Your task to perform on an android device: turn on showing notifications on the lock screen Image 0: 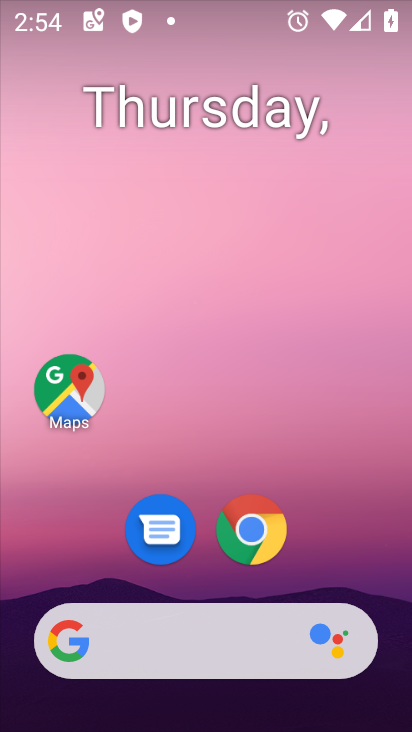
Step 0: drag from (151, 712) to (221, 167)
Your task to perform on an android device: turn on showing notifications on the lock screen Image 1: 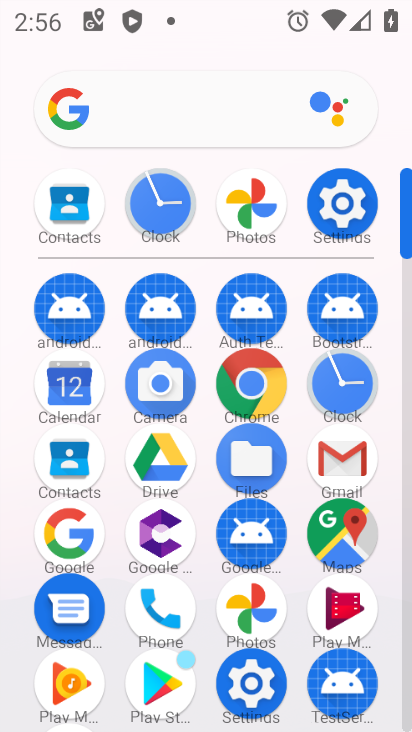
Step 1: click (341, 202)
Your task to perform on an android device: turn on showing notifications on the lock screen Image 2: 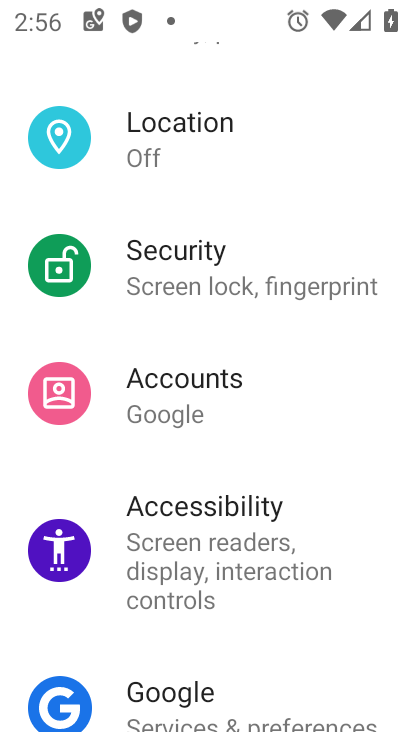
Step 2: drag from (231, 224) to (225, 685)
Your task to perform on an android device: turn on showing notifications on the lock screen Image 3: 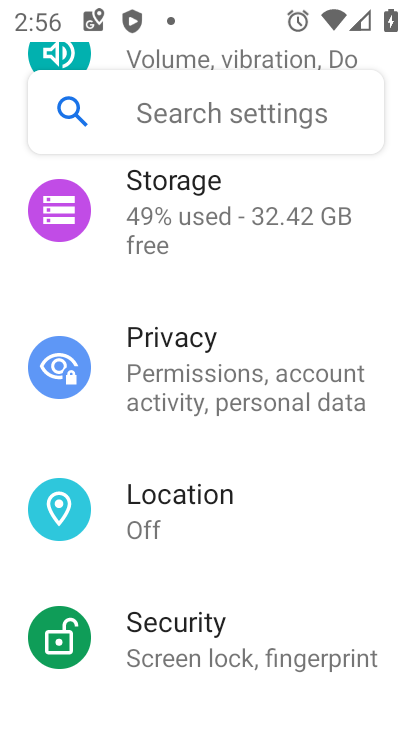
Step 3: drag from (277, 230) to (265, 605)
Your task to perform on an android device: turn on showing notifications on the lock screen Image 4: 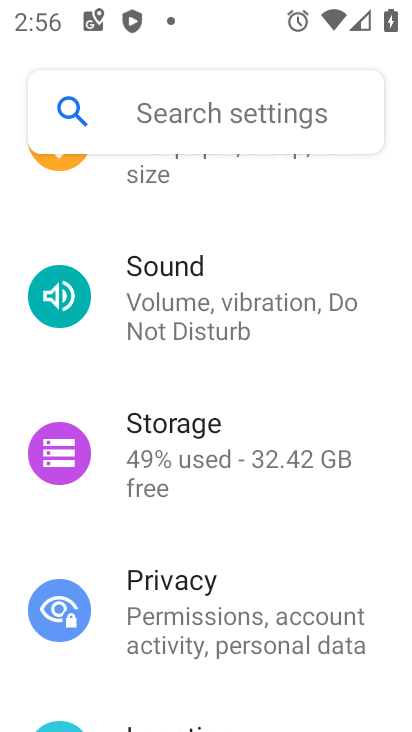
Step 4: drag from (308, 207) to (263, 635)
Your task to perform on an android device: turn on showing notifications on the lock screen Image 5: 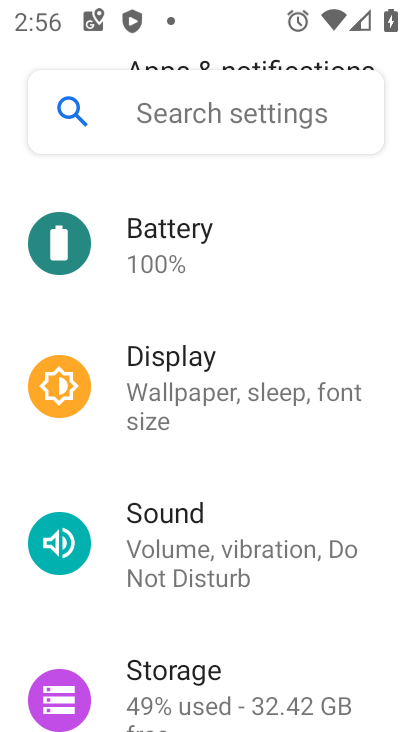
Step 5: drag from (267, 347) to (263, 706)
Your task to perform on an android device: turn on showing notifications on the lock screen Image 6: 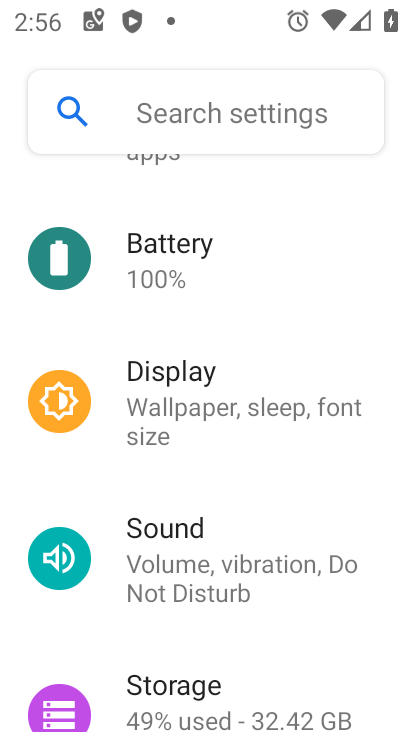
Step 6: drag from (293, 297) to (247, 604)
Your task to perform on an android device: turn on showing notifications on the lock screen Image 7: 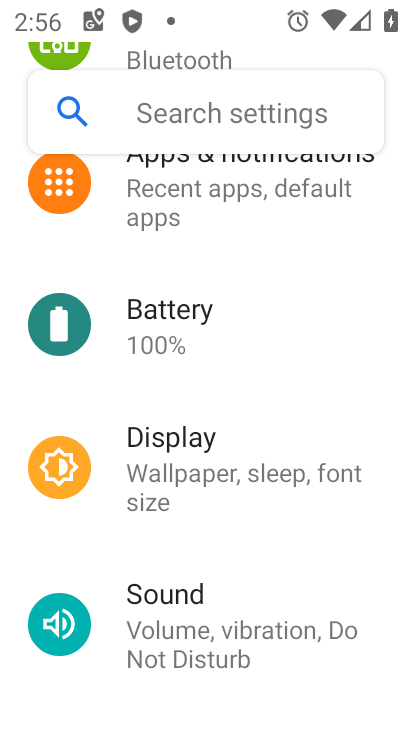
Step 7: click (268, 201)
Your task to perform on an android device: turn on showing notifications on the lock screen Image 8: 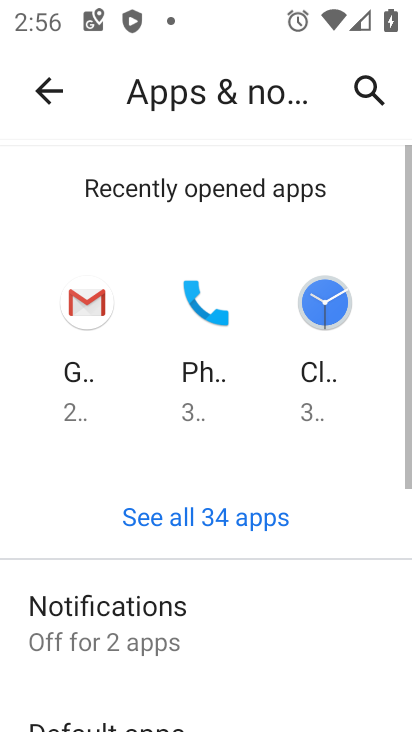
Step 8: click (167, 618)
Your task to perform on an android device: turn on showing notifications on the lock screen Image 9: 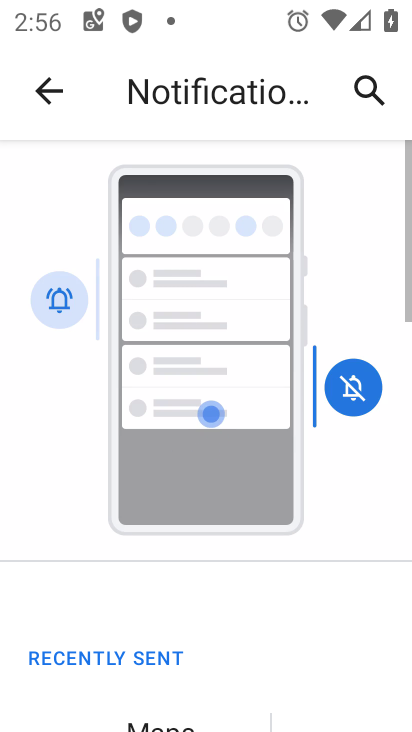
Step 9: drag from (265, 668) to (106, 102)
Your task to perform on an android device: turn on showing notifications on the lock screen Image 10: 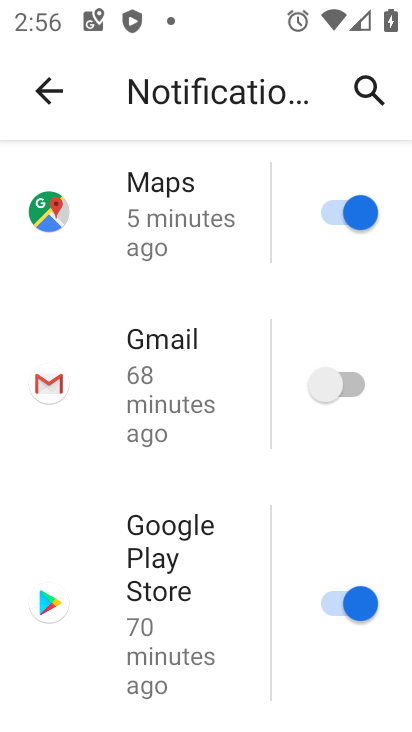
Step 10: drag from (214, 620) to (6, 233)
Your task to perform on an android device: turn on showing notifications on the lock screen Image 11: 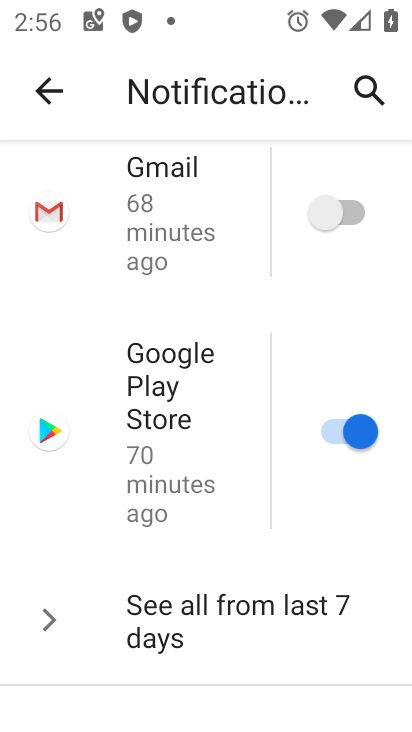
Step 11: drag from (168, 668) to (70, 160)
Your task to perform on an android device: turn on showing notifications on the lock screen Image 12: 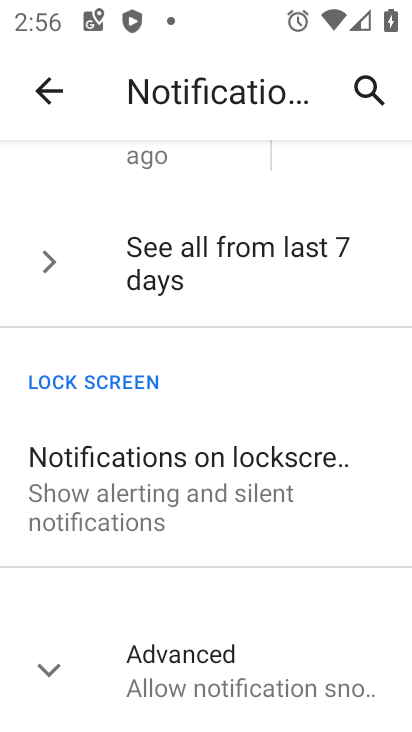
Step 12: click (245, 471)
Your task to perform on an android device: turn on showing notifications on the lock screen Image 13: 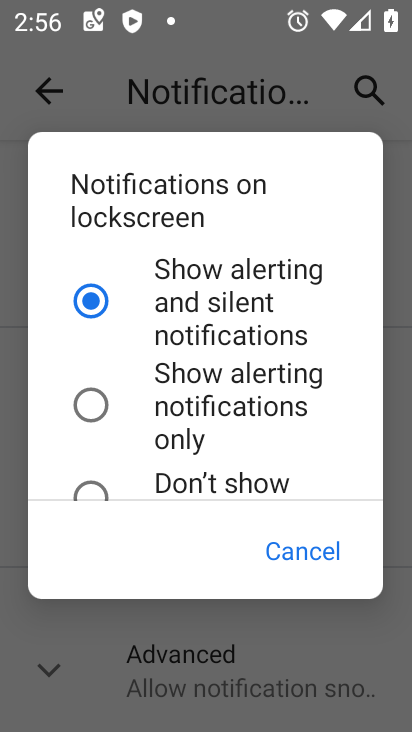
Step 13: task complete